Your task to perform on an android device: Open Google Image 0: 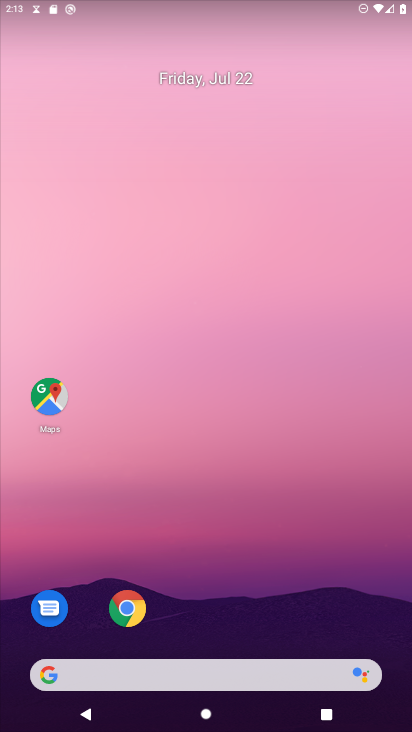
Step 0: drag from (196, 608) to (216, 244)
Your task to perform on an android device: Open Google Image 1: 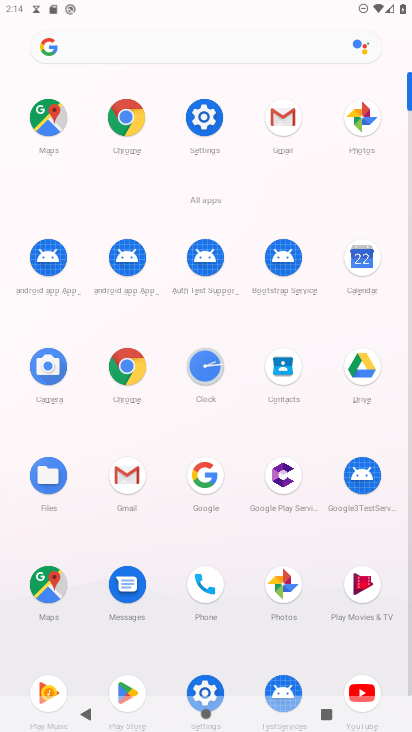
Step 1: click (202, 476)
Your task to perform on an android device: Open Google Image 2: 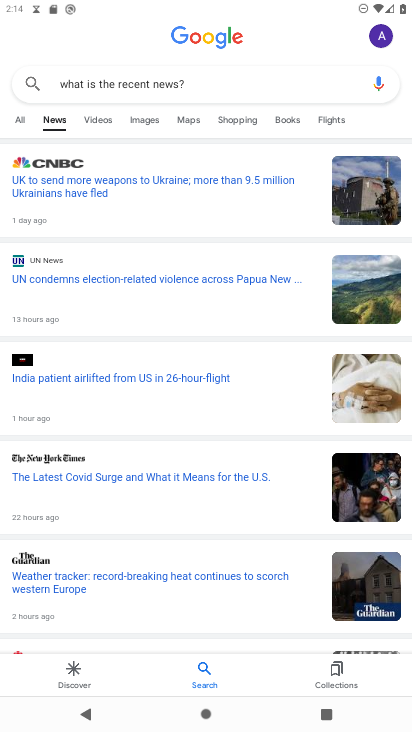
Step 2: task complete